Your task to perform on an android device: Go to internet settings Image 0: 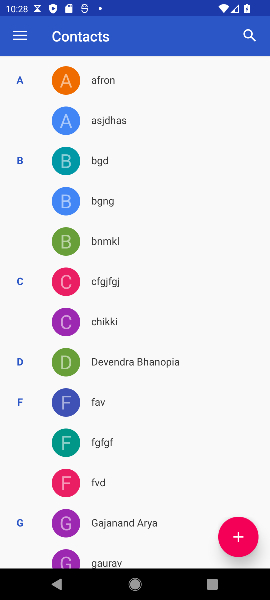
Step 0: press home button
Your task to perform on an android device: Go to internet settings Image 1: 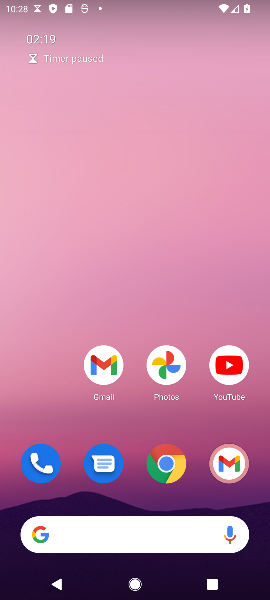
Step 1: drag from (29, 581) to (132, 127)
Your task to perform on an android device: Go to internet settings Image 2: 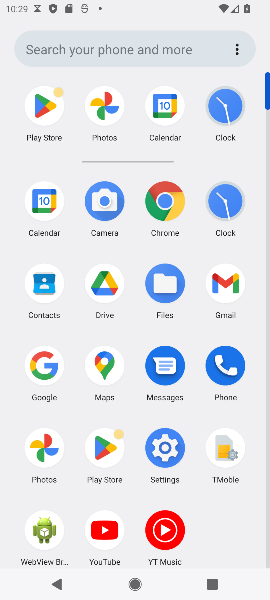
Step 2: click (161, 453)
Your task to perform on an android device: Go to internet settings Image 3: 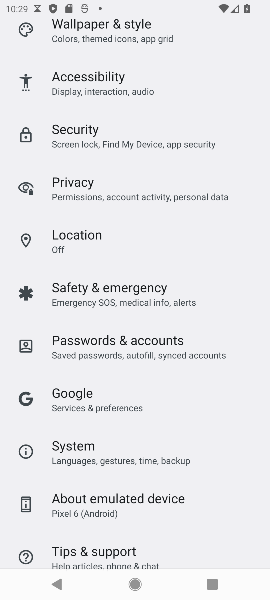
Step 3: drag from (202, 50) to (204, 409)
Your task to perform on an android device: Go to internet settings Image 4: 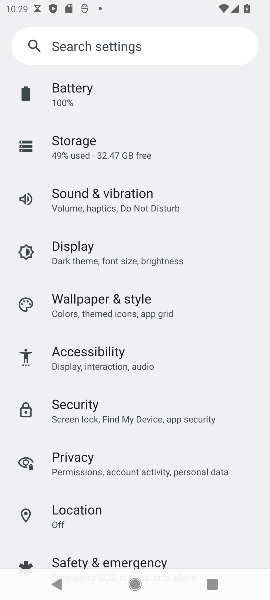
Step 4: drag from (188, 117) to (213, 561)
Your task to perform on an android device: Go to internet settings Image 5: 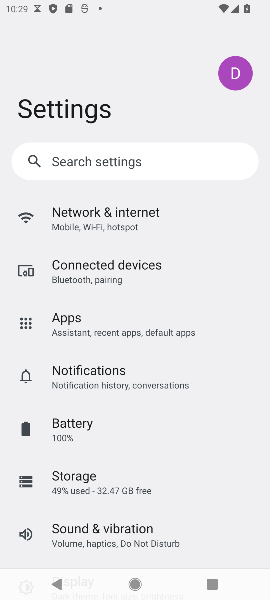
Step 5: click (90, 224)
Your task to perform on an android device: Go to internet settings Image 6: 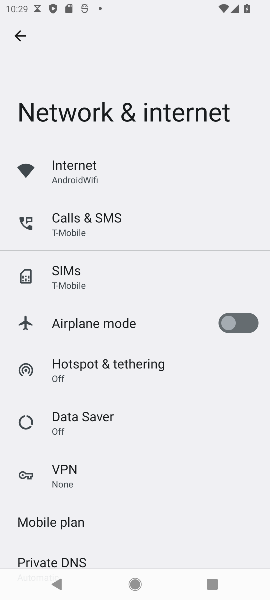
Step 6: task complete